Your task to perform on an android device: See recent photos Image 0: 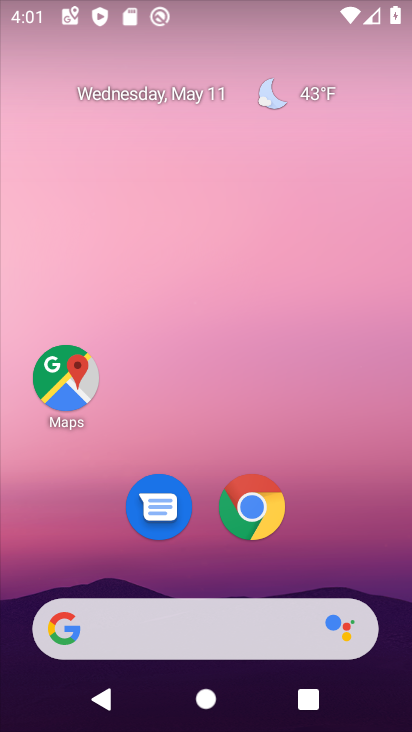
Step 0: drag from (190, 453) to (200, 144)
Your task to perform on an android device: See recent photos Image 1: 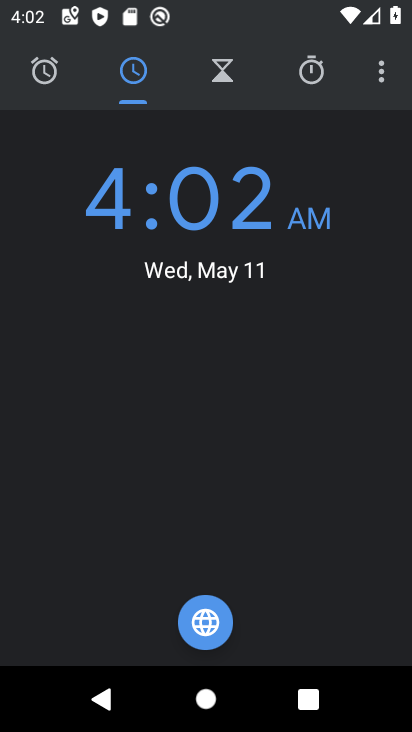
Step 1: press home button
Your task to perform on an android device: See recent photos Image 2: 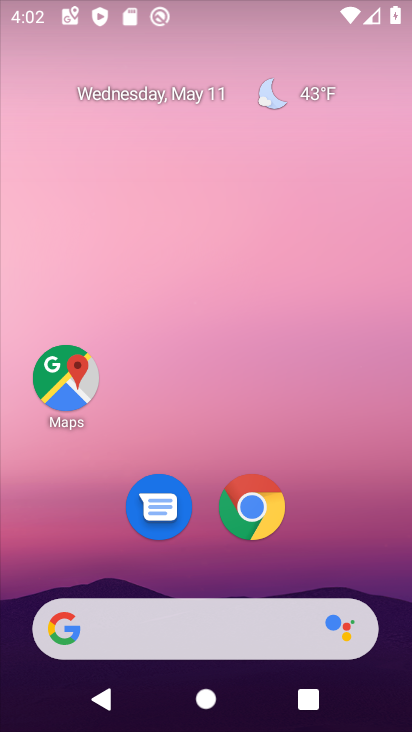
Step 2: drag from (202, 563) to (200, 338)
Your task to perform on an android device: See recent photos Image 3: 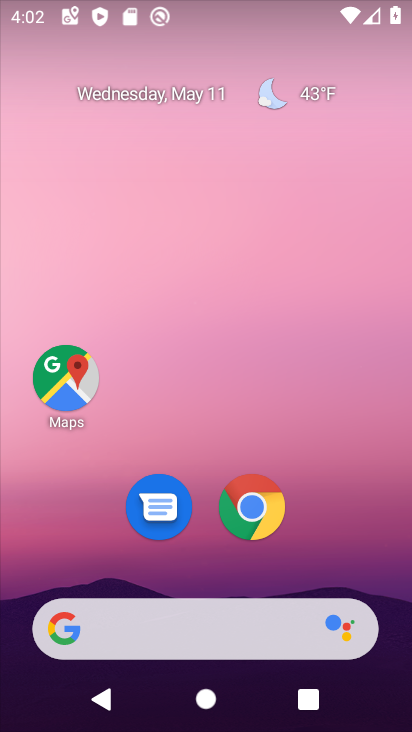
Step 3: drag from (168, 607) to (170, 9)
Your task to perform on an android device: See recent photos Image 4: 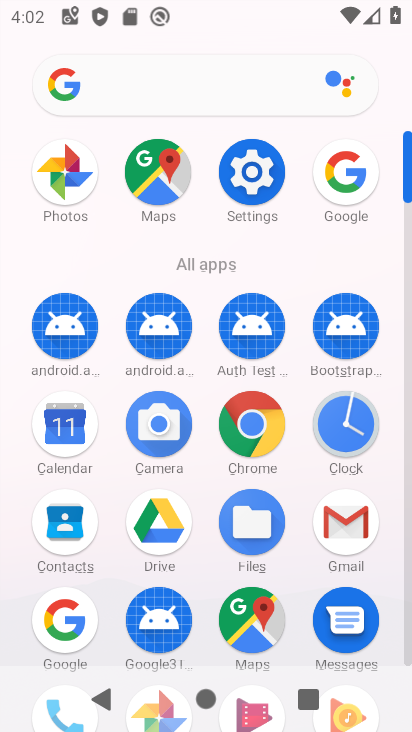
Step 4: drag from (230, 606) to (260, 231)
Your task to perform on an android device: See recent photos Image 5: 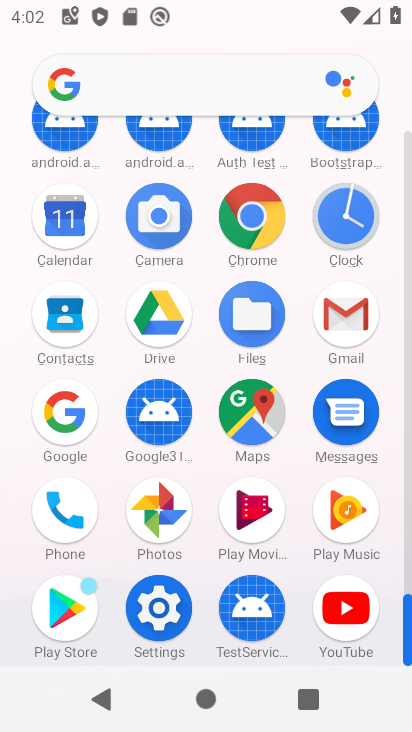
Step 5: click (174, 512)
Your task to perform on an android device: See recent photos Image 6: 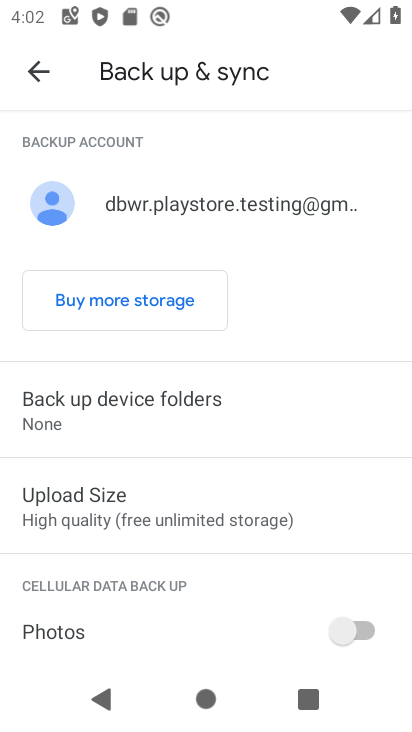
Step 6: press home button
Your task to perform on an android device: See recent photos Image 7: 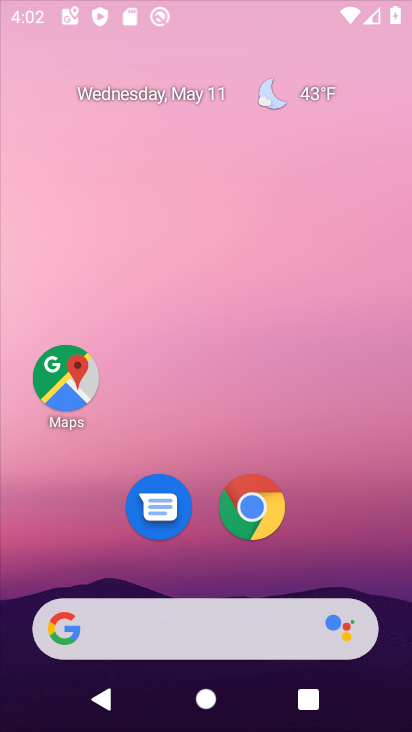
Step 7: drag from (244, 570) to (264, 151)
Your task to perform on an android device: See recent photos Image 8: 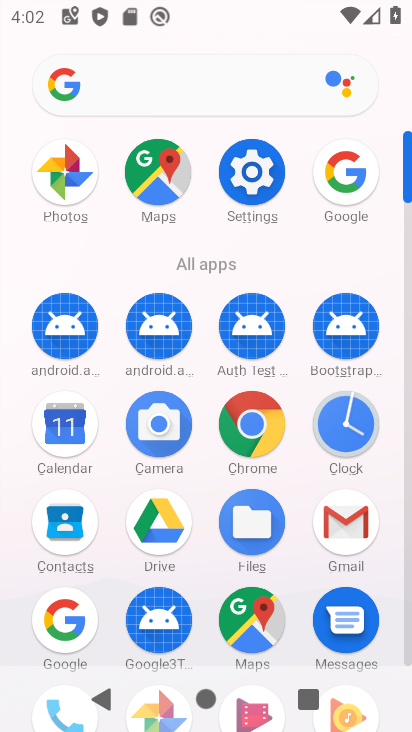
Step 8: drag from (223, 469) to (258, 158)
Your task to perform on an android device: See recent photos Image 9: 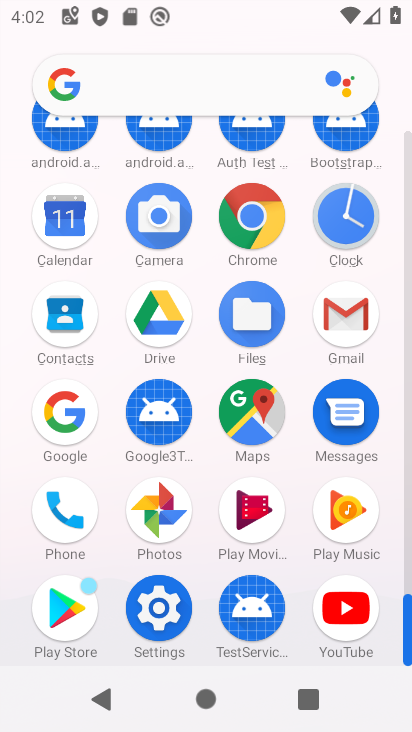
Step 9: click (184, 515)
Your task to perform on an android device: See recent photos Image 10: 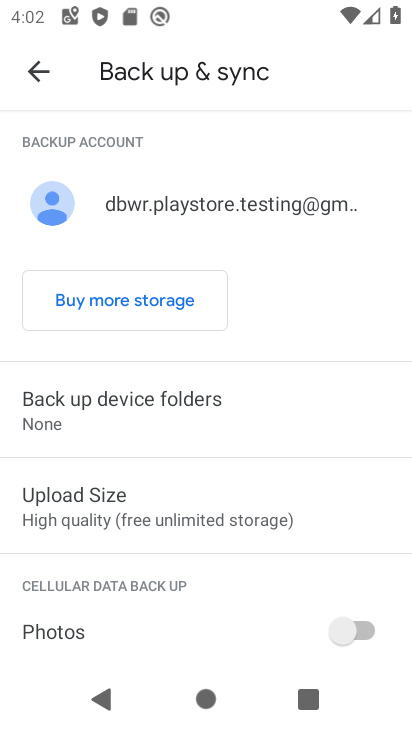
Step 10: click (40, 83)
Your task to perform on an android device: See recent photos Image 11: 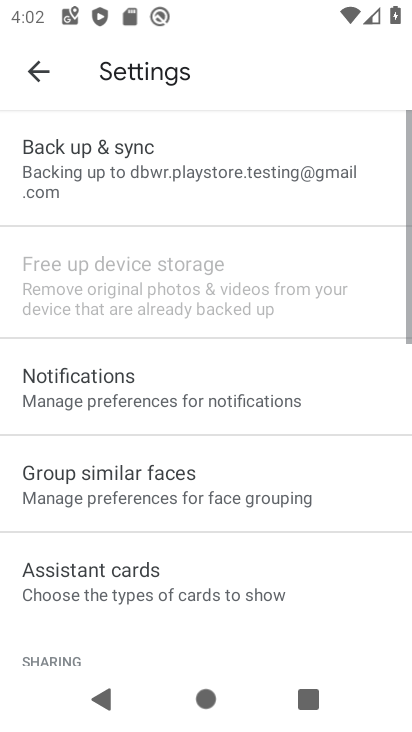
Step 11: click (41, 83)
Your task to perform on an android device: See recent photos Image 12: 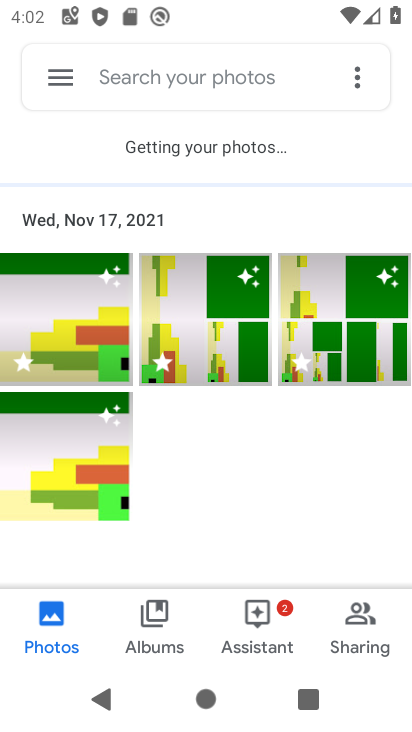
Step 12: task complete